Your task to perform on an android device: Search for flights from Boston to Sydney Image 0: 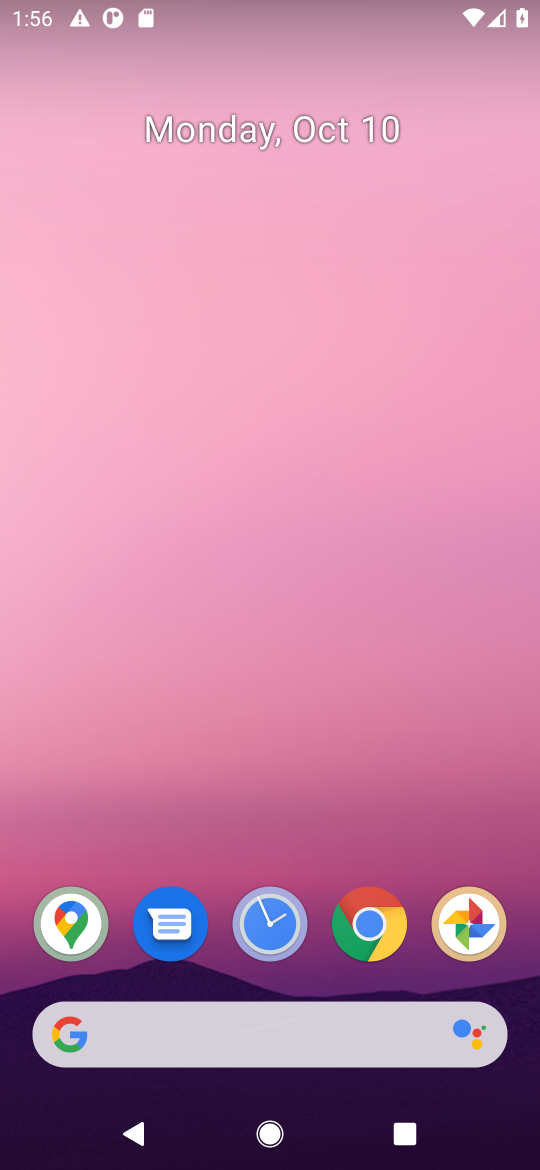
Step 0: drag from (322, 888) to (394, 221)
Your task to perform on an android device: Search for flights from Boston to Sydney Image 1: 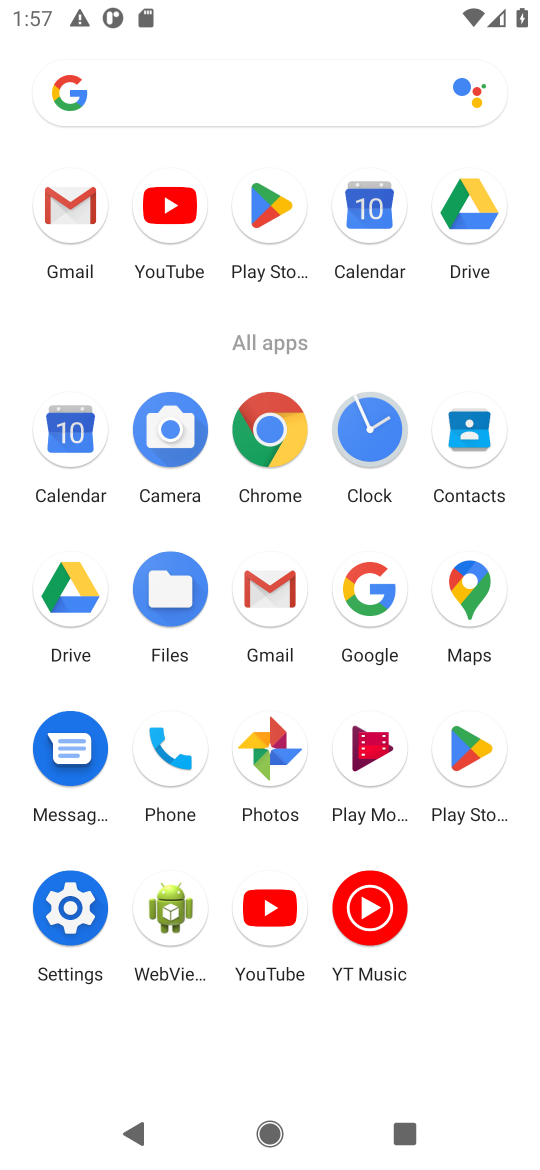
Step 1: click (273, 433)
Your task to perform on an android device: Search for flights from Boston to Sydney Image 2: 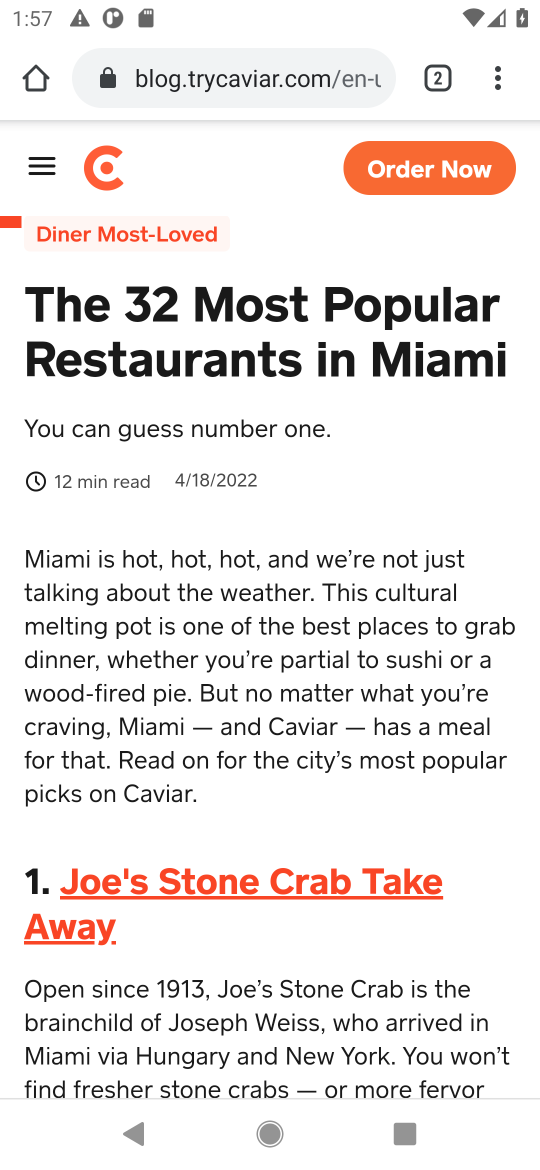
Step 2: click (201, 73)
Your task to perform on an android device: Search for flights from Boston to Sydney Image 3: 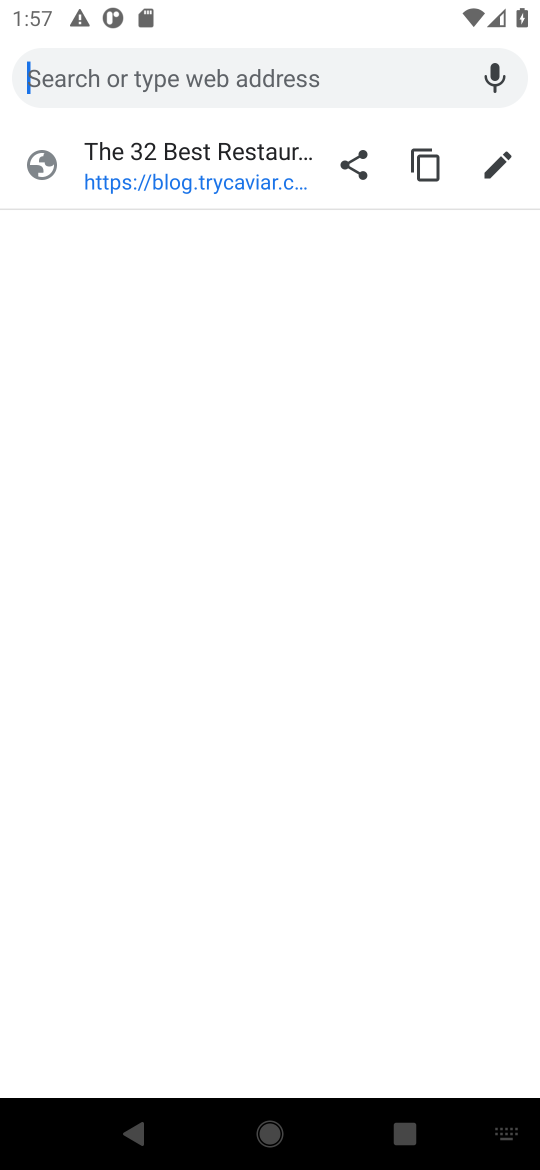
Step 3: type "Search for flights from Boston to Sydney"
Your task to perform on an android device: Search for flights from Boston to Sydney Image 4: 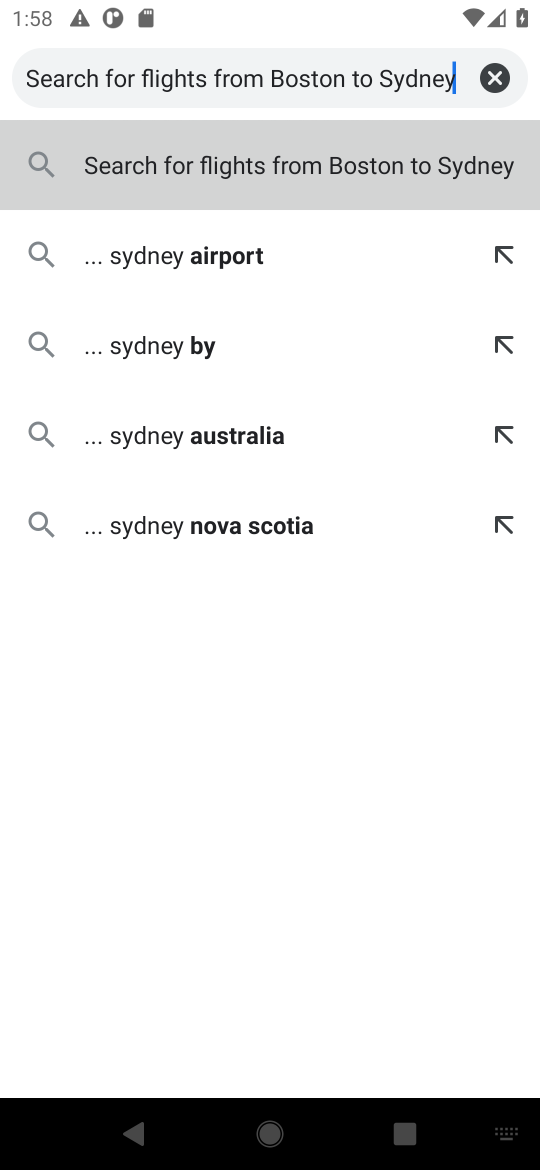
Step 4: click (176, 168)
Your task to perform on an android device: Search for flights from Boston to Sydney Image 5: 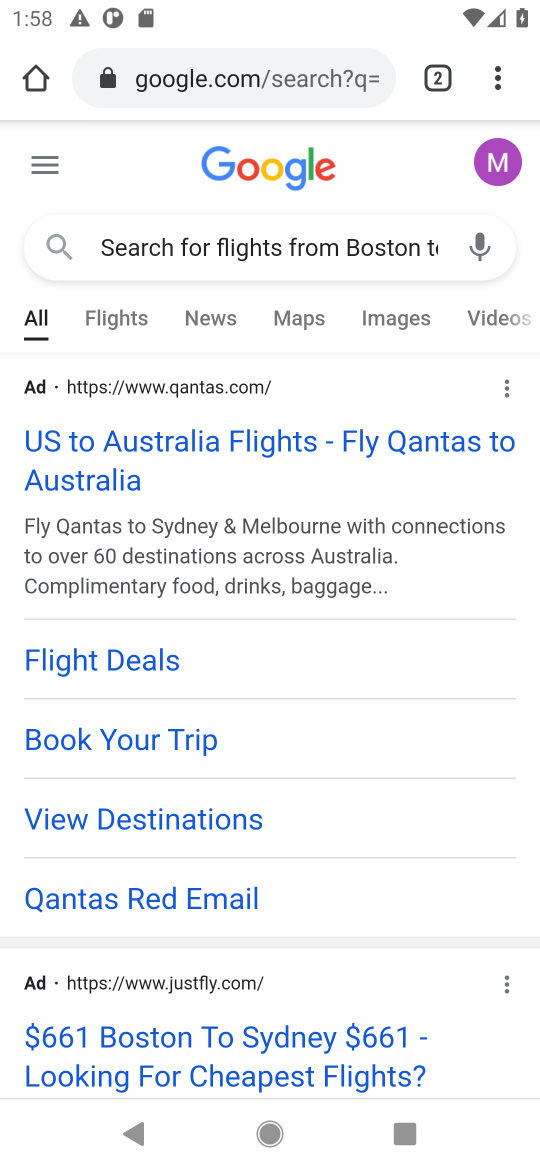
Step 5: task complete